Your task to perform on an android device: Open battery settings Image 0: 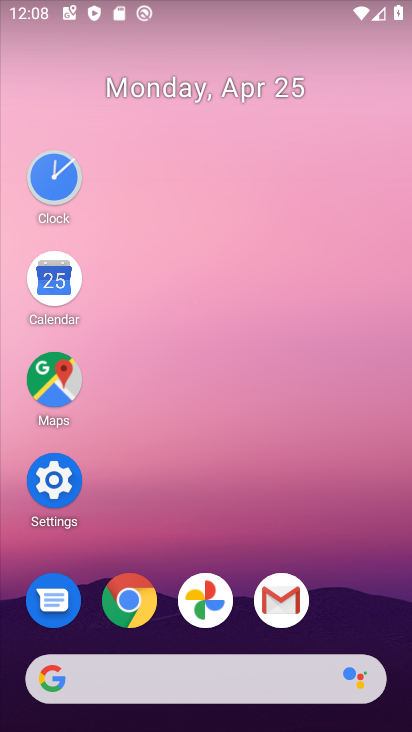
Step 0: click (58, 478)
Your task to perform on an android device: Open battery settings Image 1: 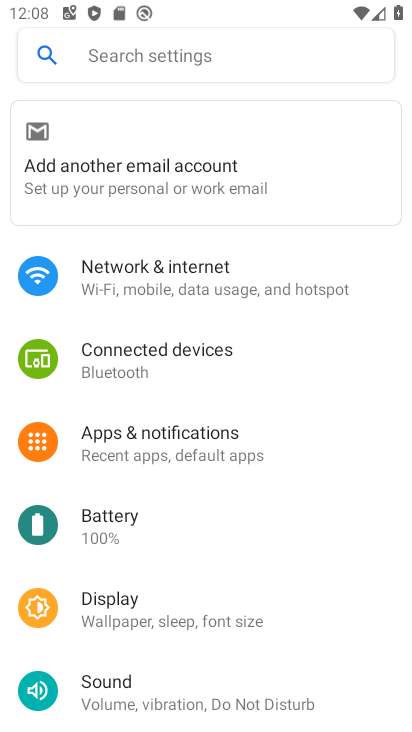
Step 1: click (103, 519)
Your task to perform on an android device: Open battery settings Image 2: 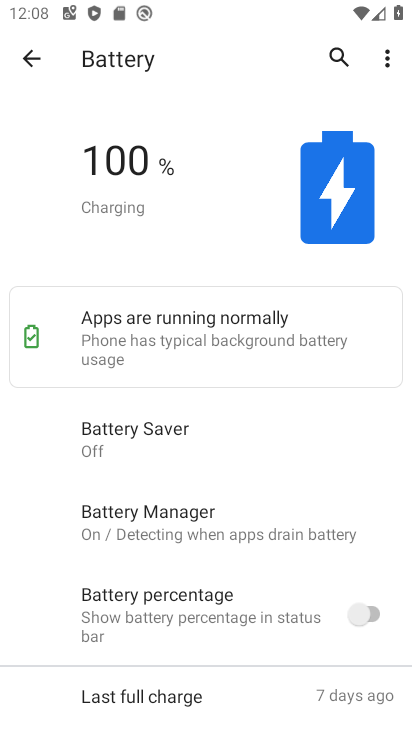
Step 2: task complete